Your task to perform on an android device: What's a good restaurant in Philadelphia? Image 0: 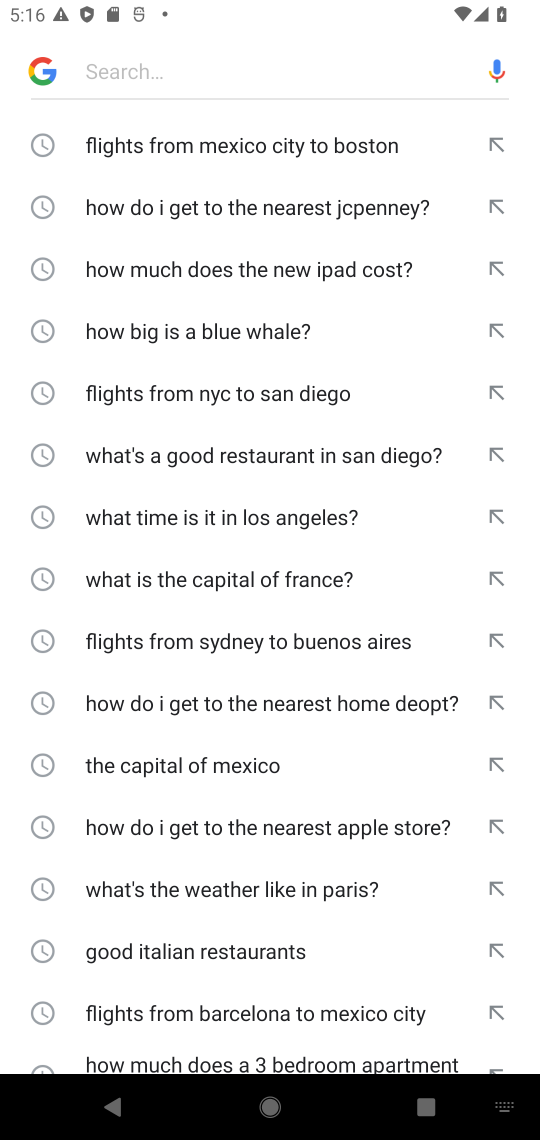
Step 0: type "What's a good restaurant in Philadelphia?"
Your task to perform on an android device: What's a good restaurant in Philadelphia? Image 1: 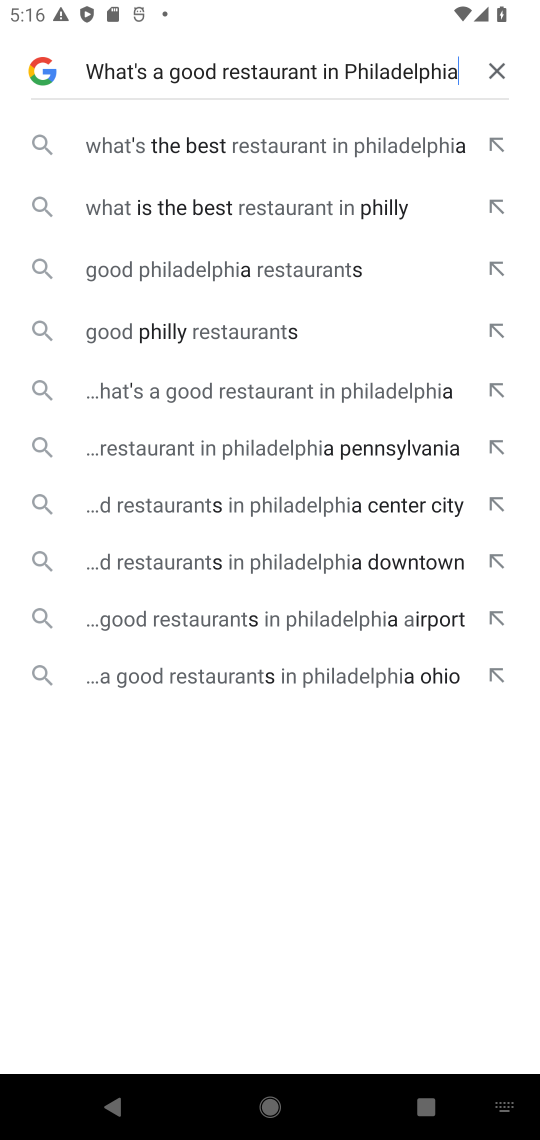
Step 1: press enter
Your task to perform on an android device: What's a good restaurant in Philadelphia? Image 2: 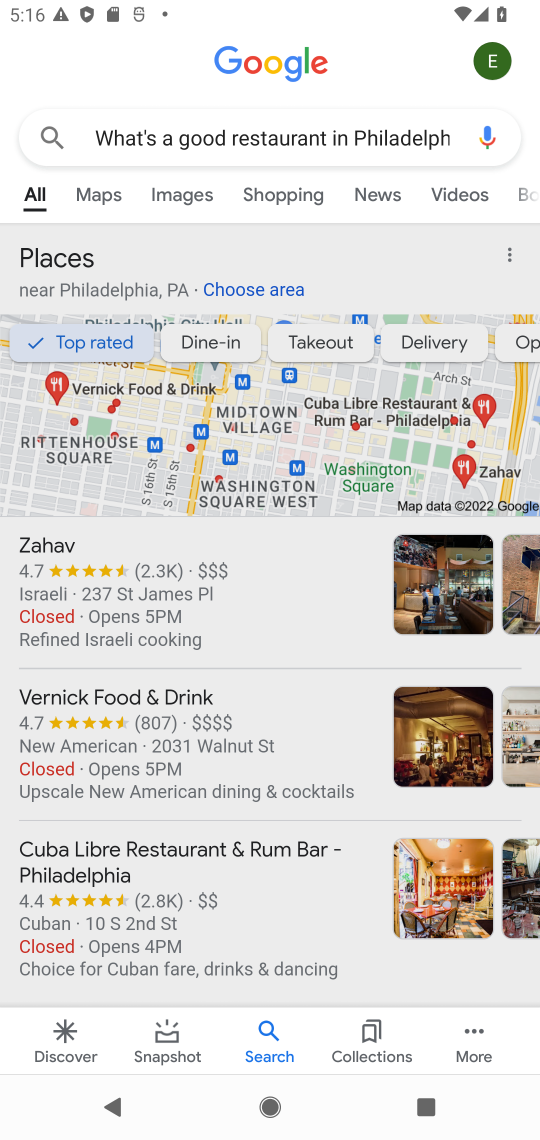
Step 2: task complete